Your task to perform on an android device: Go to battery settings Image 0: 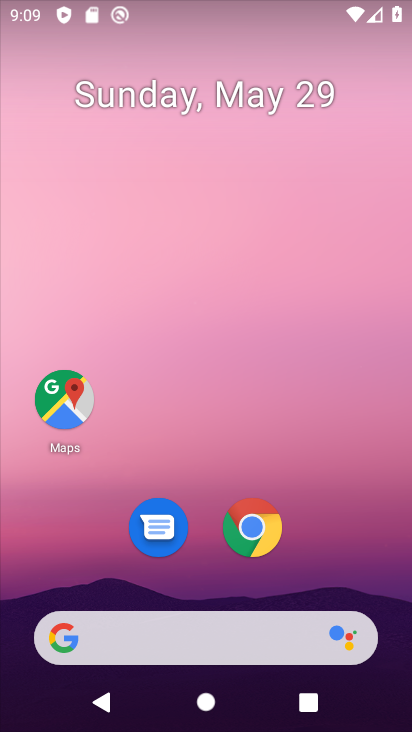
Step 0: press home button
Your task to perform on an android device: Go to battery settings Image 1: 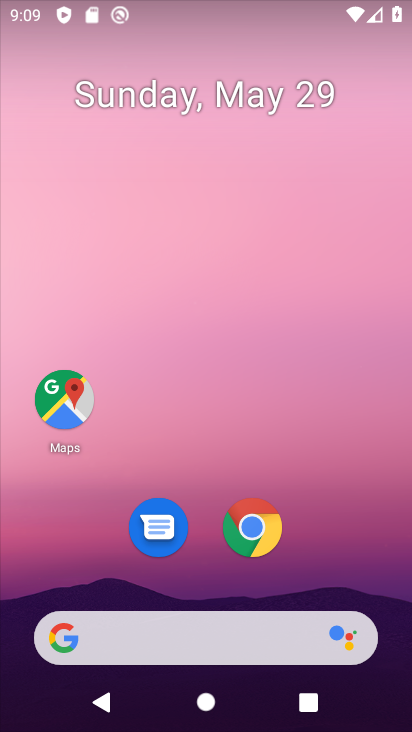
Step 1: drag from (182, 641) to (313, 52)
Your task to perform on an android device: Go to battery settings Image 2: 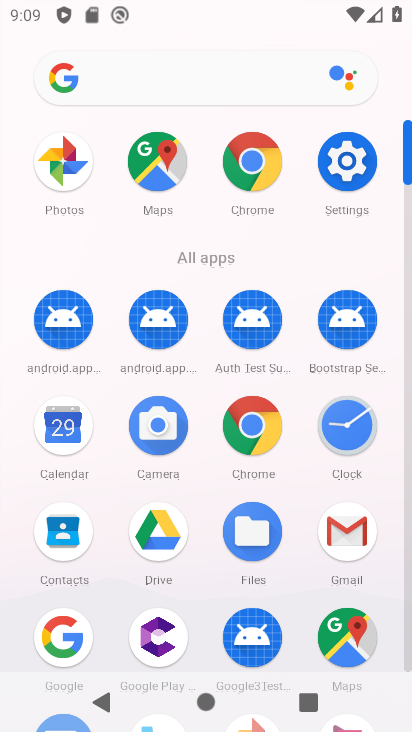
Step 2: click (351, 165)
Your task to perform on an android device: Go to battery settings Image 3: 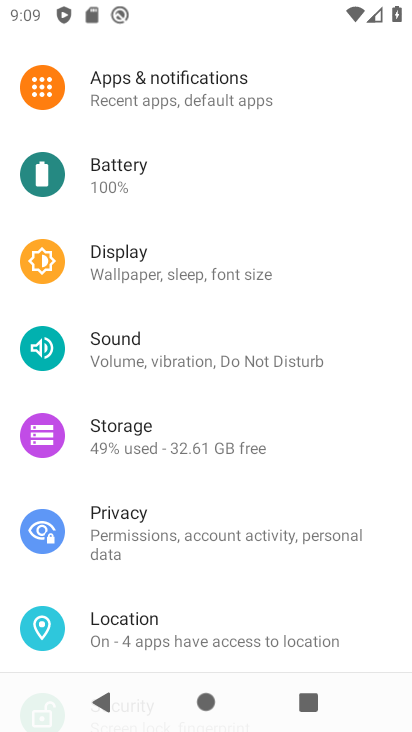
Step 3: click (128, 172)
Your task to perform on an android device: Go to battery settings Image 4: 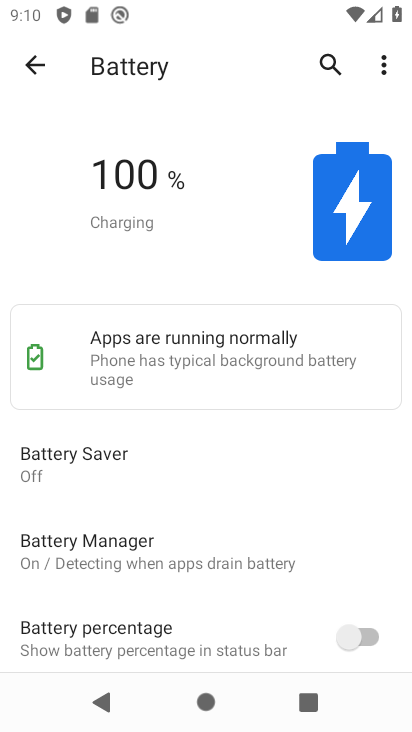
Step 4: task complete